Your task to perform on an android device: check android version Image 0: 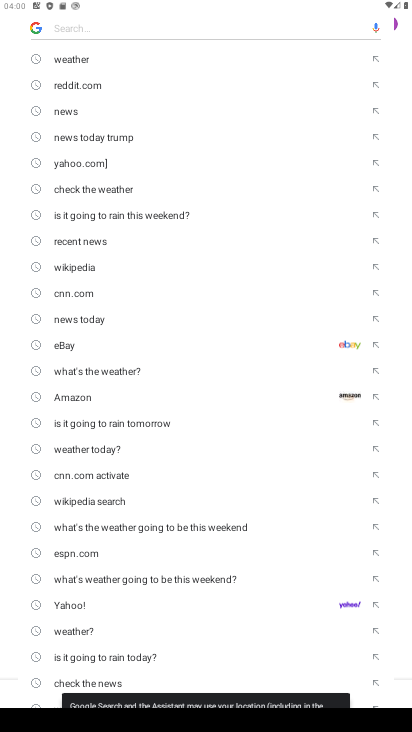
Step 0: press home button
Your task to perform on an android device: check android version Image 1: 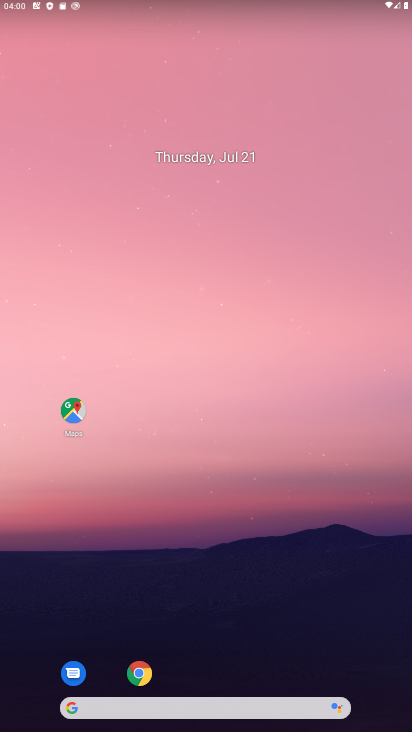
Step 1: drag from (282, 650) to (284, 175)
Your task to perform on an android device: check android version Image 2: 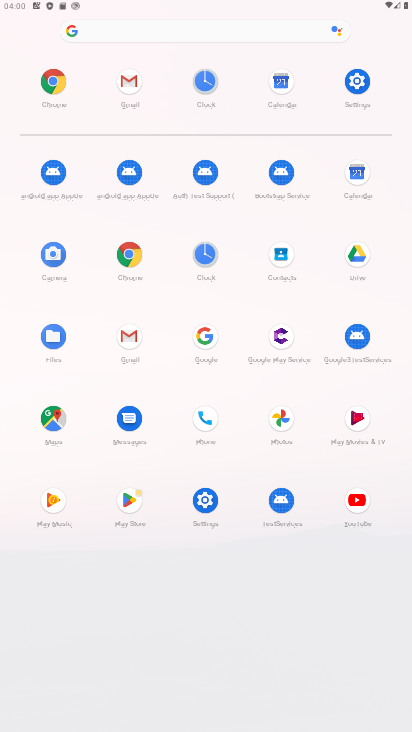
Step 2: click (351, 81)
Your task to perform on an android device: check android version Image 3: 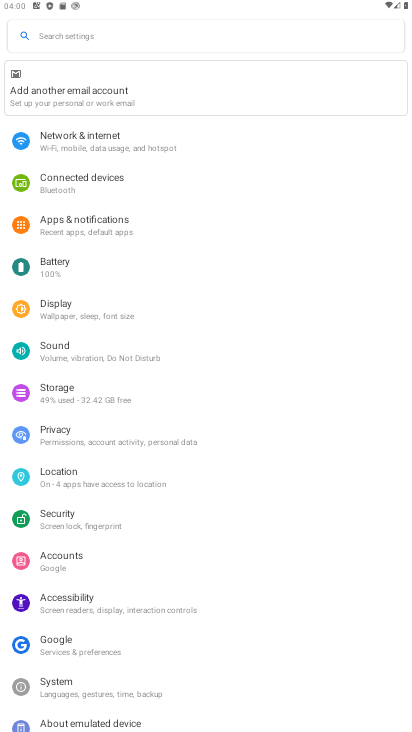
Step 3: drag from (156, 687) to (242, 163)
Your task to perform on an android device: check android version Image 4: 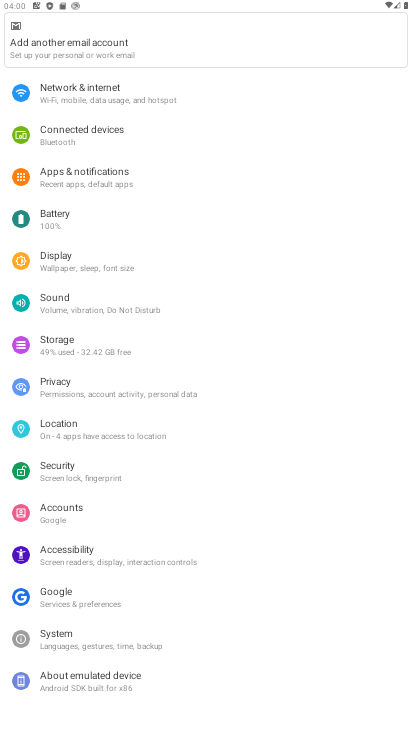
Step 4: click (64, 675)
Your task to perform on an android device: check android version Image 5: 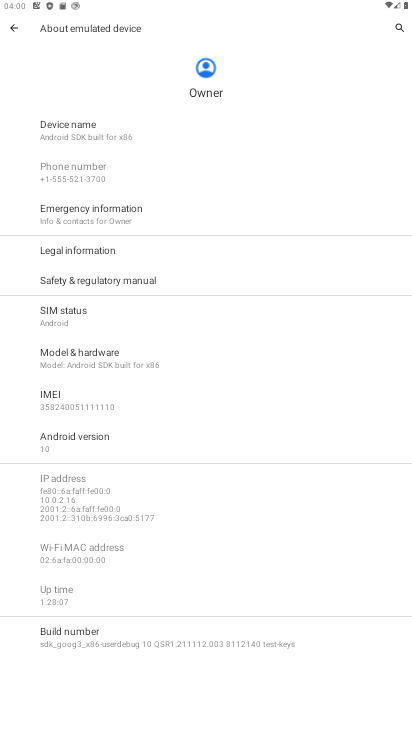
Step 5: click (79, 431)
Your task to perform on an android device: check android version Image 6: 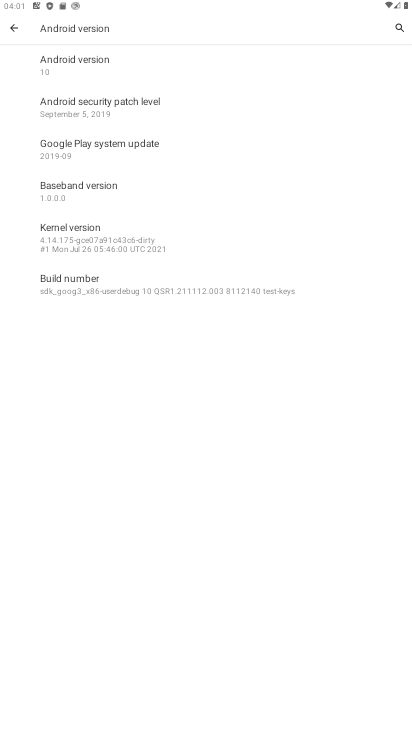
Step 6: click (239, 70)
Your task to perform on an android device: check android version Image 7: 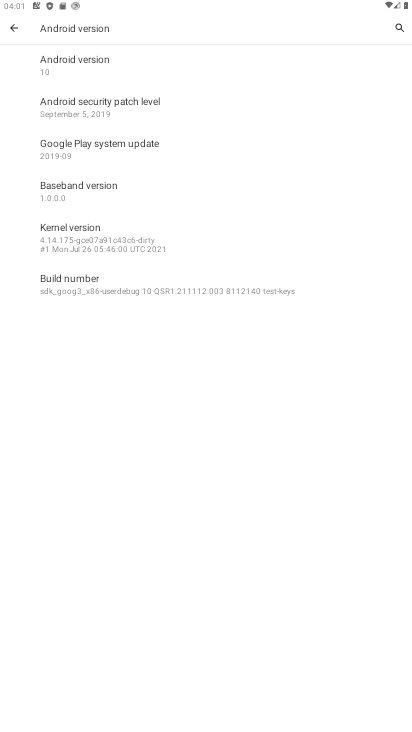
Step 7: task complete